Your task to perform on an android device: turn on showing notifications on the lock screen Image 0: 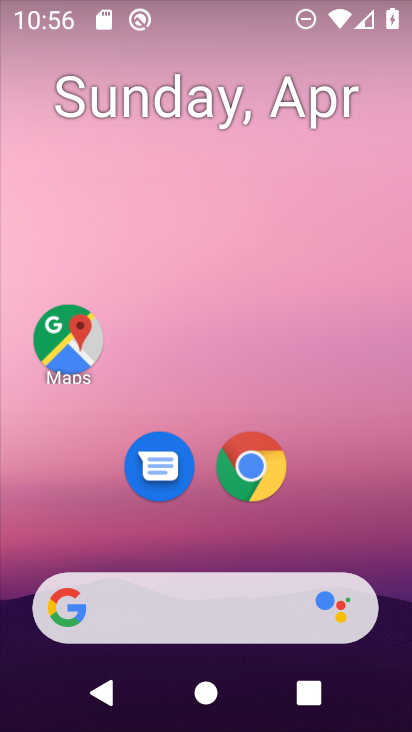
Step 0: drag from (367, 529) to (366, 116)
Your task to perform on an android device: turn on showing notifications on the lock screen Image 1: 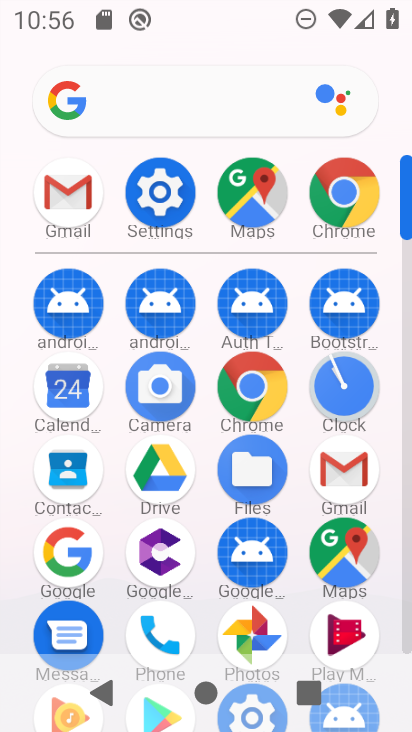
Step 1: click (170, 196)
Your task to perform on an android device: turn on showing notifications on the lock screen Image 2: 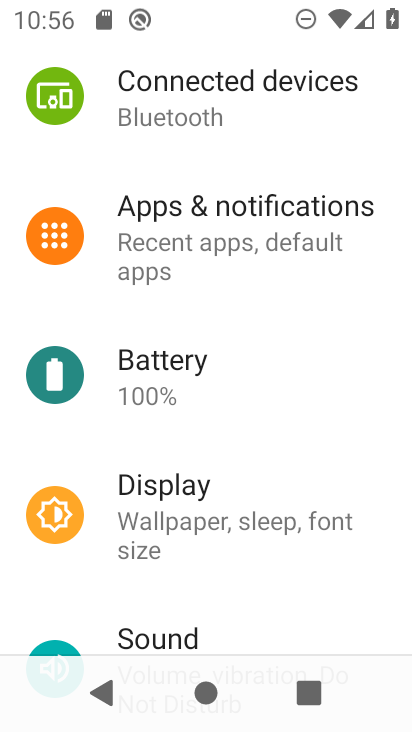
Step 2: drag from (371, 291) to (369, 449)
Your task to perform on an android device: turn on showing notifications on the lock screen Image 3: 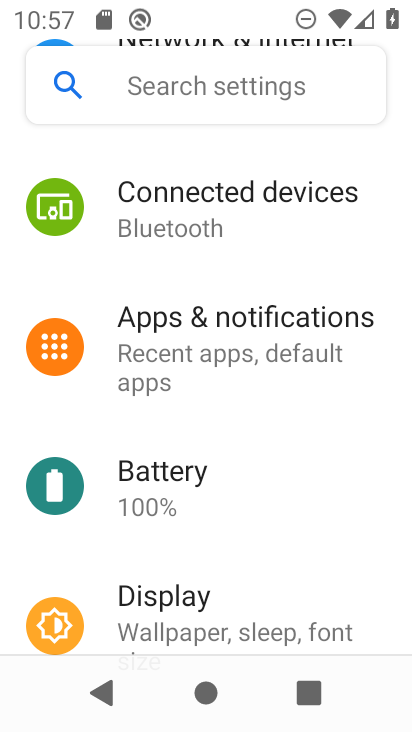
Step 3: drag from (390, 210) to (359, 500)
Your task to perform on an android device: turn on showing notifications on the lock screen Image 4: 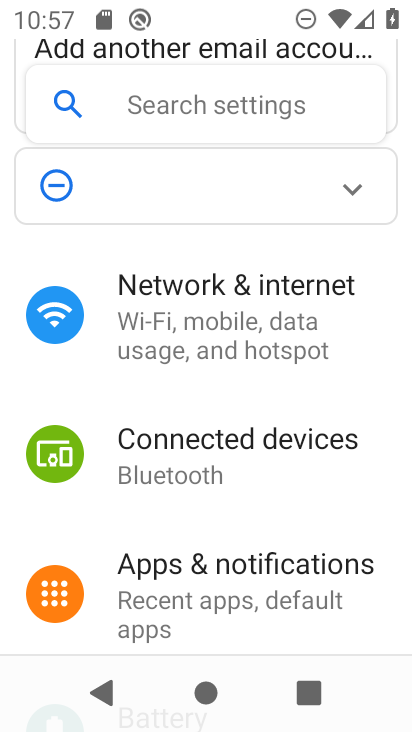
Step 4: drag from (376, 507) to (390, 274)
Your task to perform on an android device: turn on showing notifications on the lock screen Image 5: 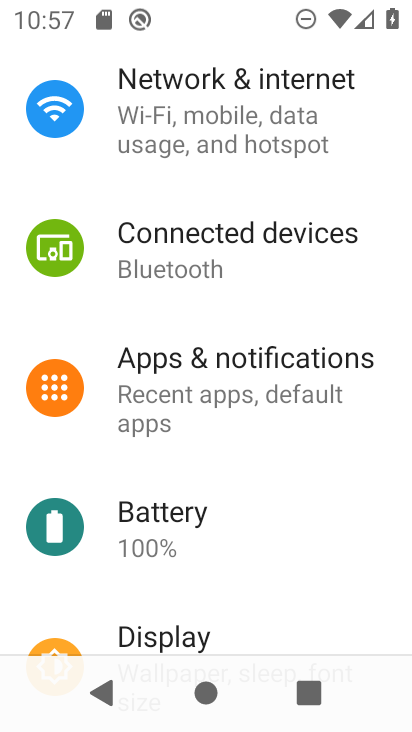
Step 5: drag from (351, 548) to (362, 321)
Your task to perform on an android device: turn on showing notifications on the lock screen Image 6: 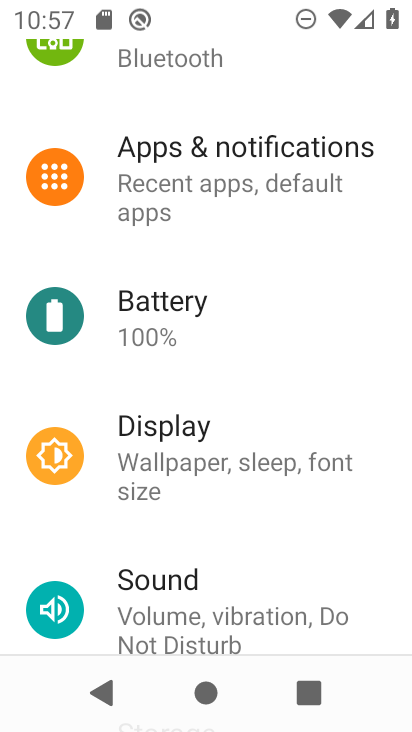
Step 6: drag from (363, 552) to (372, 287)
Your task to perform on an android device: turn on showing notifications on the lock screen Image 7: 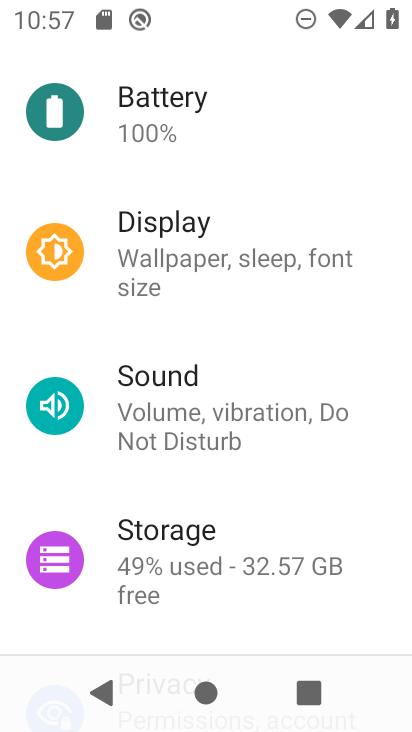
Step 7: drag from (350, 608) to (345, 329)
Your task to perform on an android device: turn on showing notifications on the lock screen Image 8: 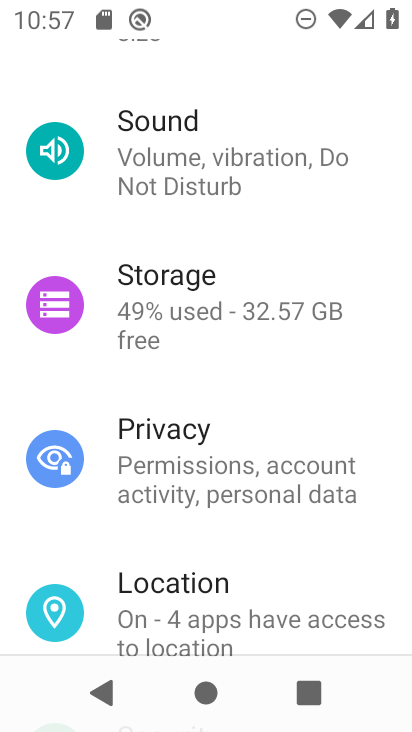
Step 8: drag from (366, 486) to (365, 532)
Your task to perform on an android device: turn on showing notifications on the lock screen Image 9: 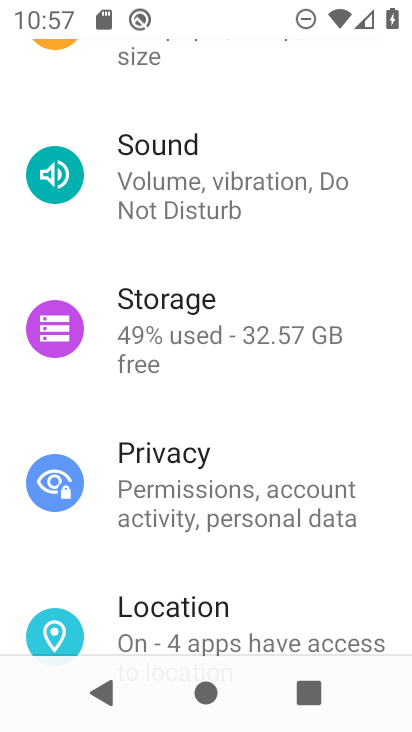
Step 9: drag from (370, 232) to (375, 447)
Your task to perform on an android device: turn on showing notifications on the lock screen Image 10: 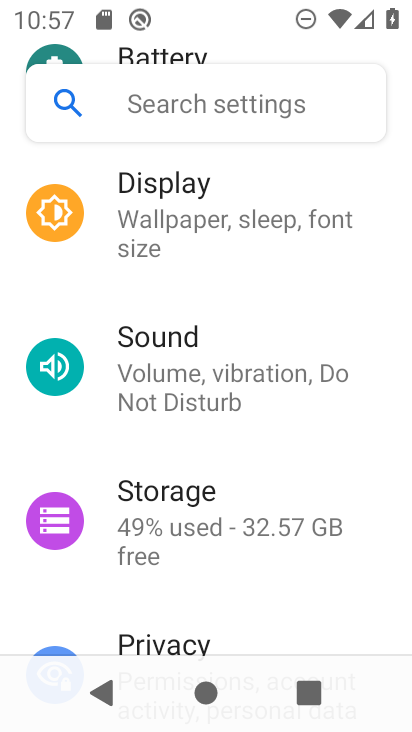
Step 10: drag from (380, 192) to (357, 372)
Your task to perform on an android device: turn on showing notifications on the lock screen Image 11: 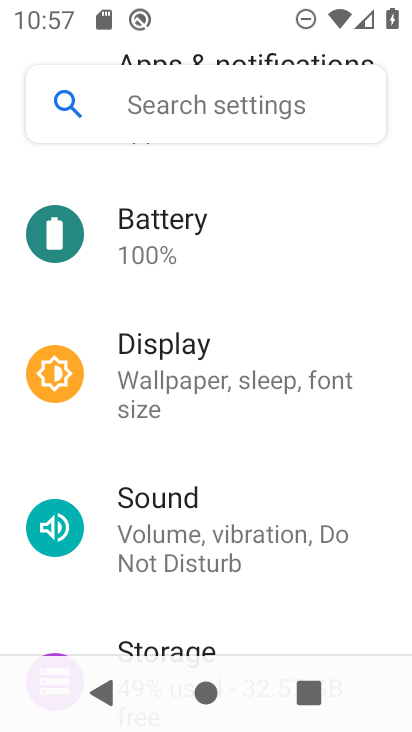
Step 11: drag from (374, 229) to (365, 468)
Your task to perform on an android device: turn on showing notifications on the lock screen Image 12: 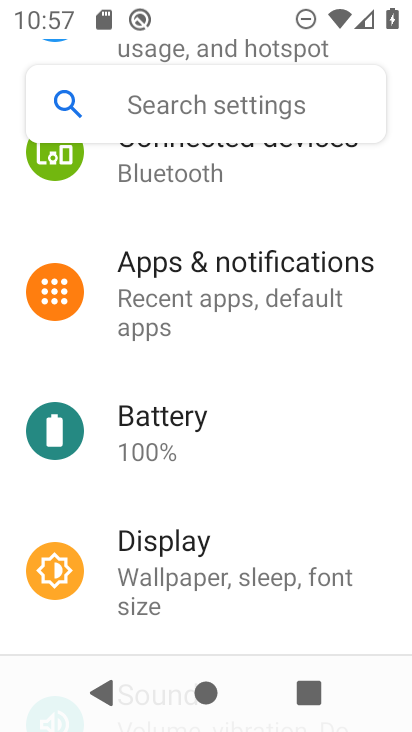
Step 12: click (240, 263)
Your task to perform on an android device: turn on showing notifications on the lock screen Image 13: 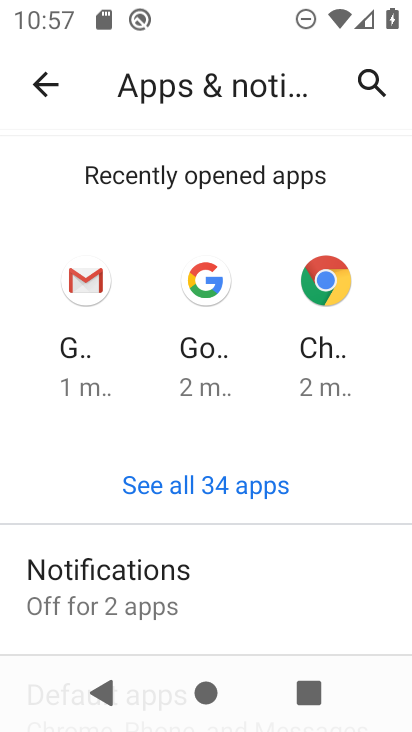
Step 13: click (127, 587)
Your task to perform on an android device: turn on showing notifications on the lock screen Image 14: 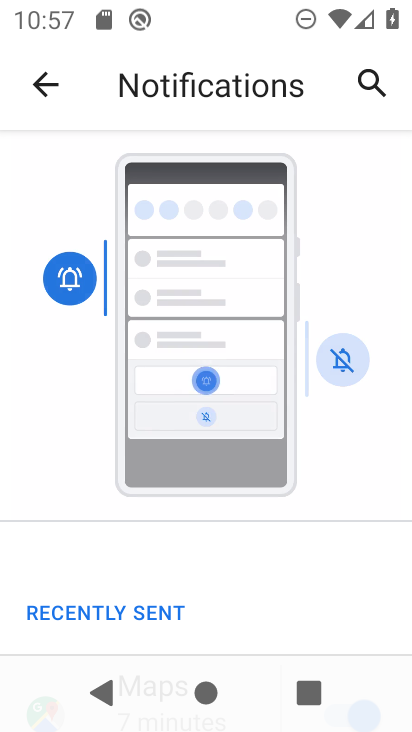
Step 14: drag from (301, 546) to (307, 337)
Your task to perform on an android device: turn on showing notifications on the lock screen Image 15: 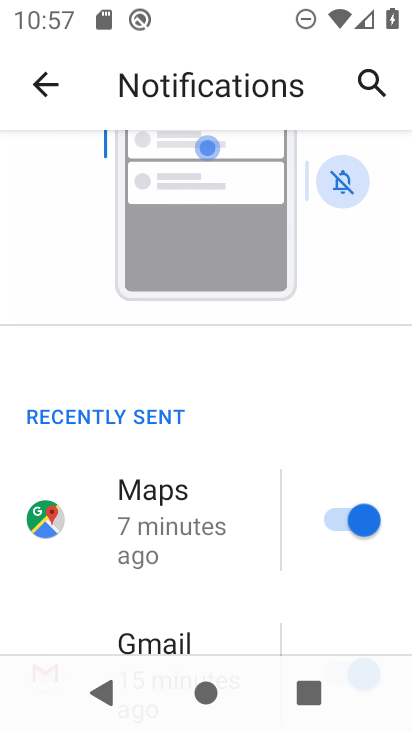
Step 15: drag from (230, 589) to (225, 312)
Your task to perform on an android device: turn on showing notifications on the lock screen Image 16: 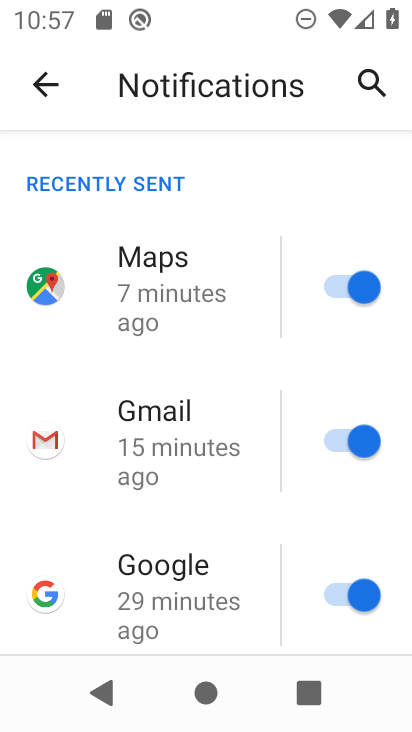
Step 16: drag from (248, 558) to (236, 224)
Your task to perform on an android device: turn on showing notifications on the lock screen Image 17: 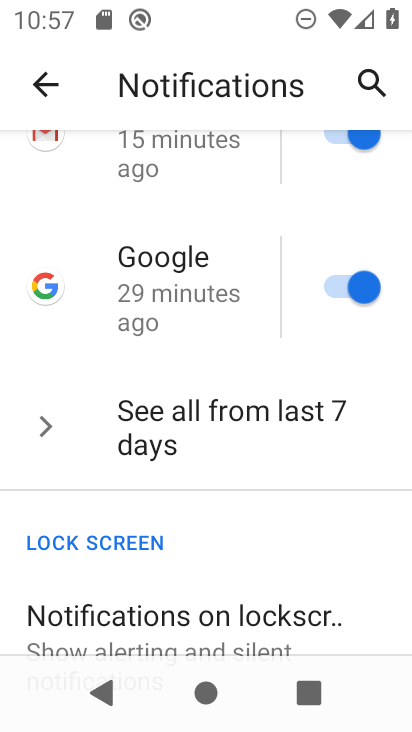
Step 17: drag from (271, 507) to (248, 277)
Your task to perform on an android device: turn on showing notifications on the lock screen Image 18: 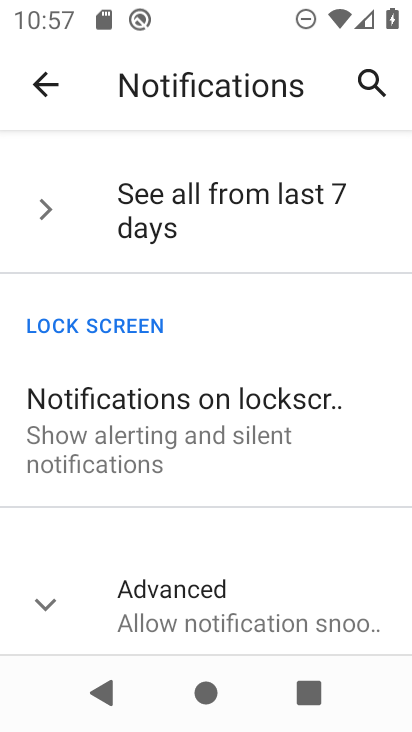
Step 18: click (186, 446)
Your task to perform on an android device: turn on showing notifications on the lock screen Image 19: 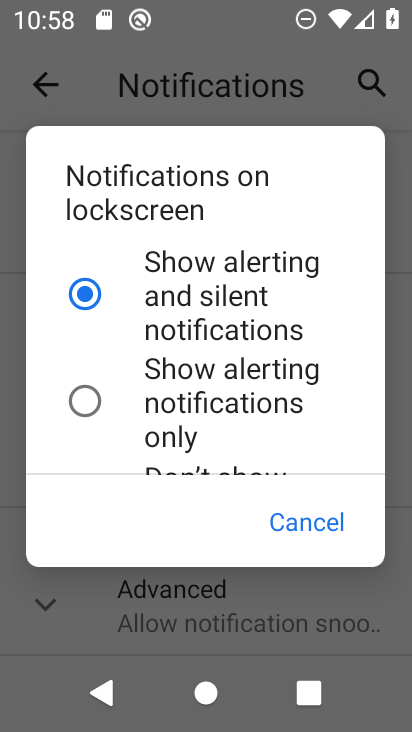
Step 19: task complete